Your task to perform on an android device: visit the assistant section in the google photos Image 0: 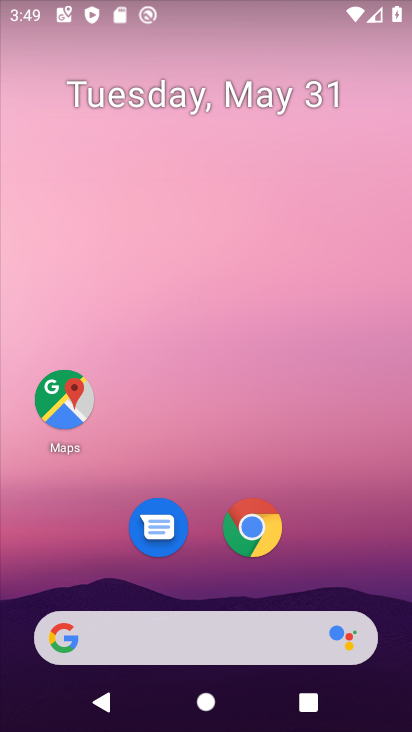
Step 0: drag from (184, 593) to (395, 663)
Your task to perform on an android device: visit the assistant section in the google photos Image 1: 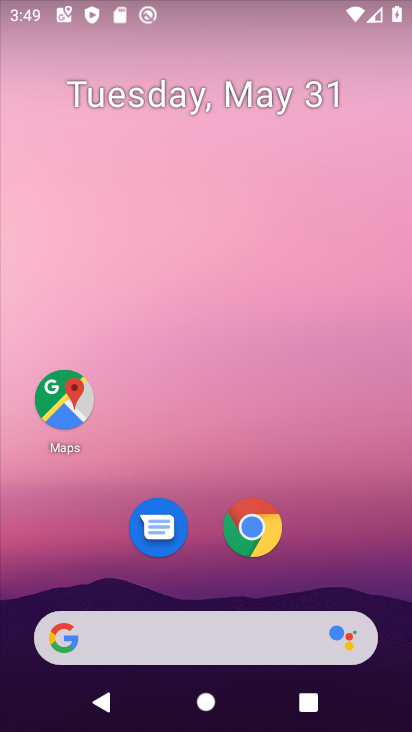
Step 1: drag from (203, 585) to (402, 497)
Your task to perform on an android device: visit the assistant section in the google photos Image 2: 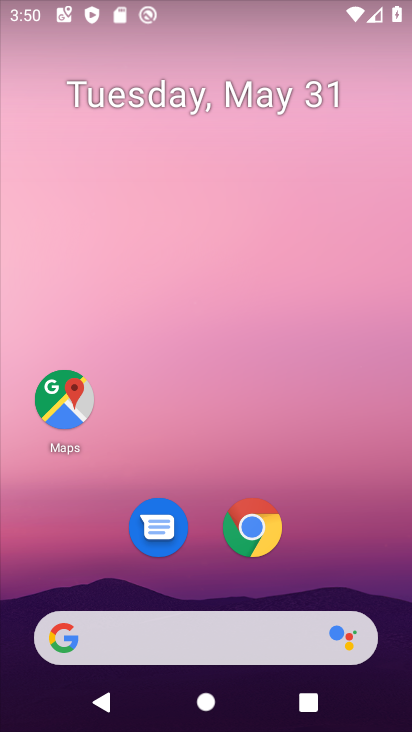
Step 2: drag from (180, 632) to (277, 11)
Your task to perform on an android device: visit the assistant section in the google photos Image 3: 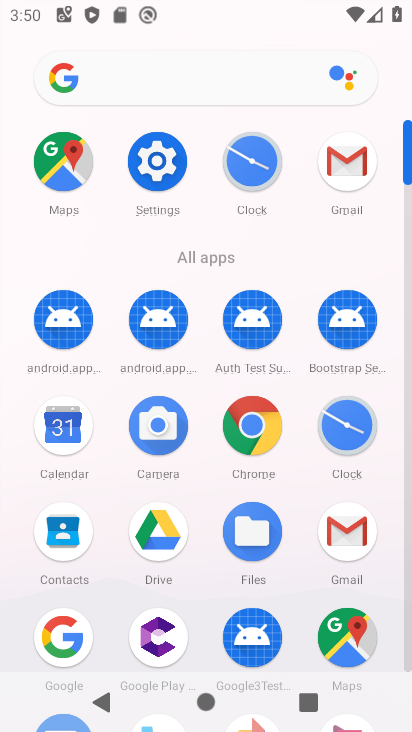
Step 3: drag from (198, 594) to (138, 68)
Your task to perform on an android device: visit the assistant section in the google photos Image 4: 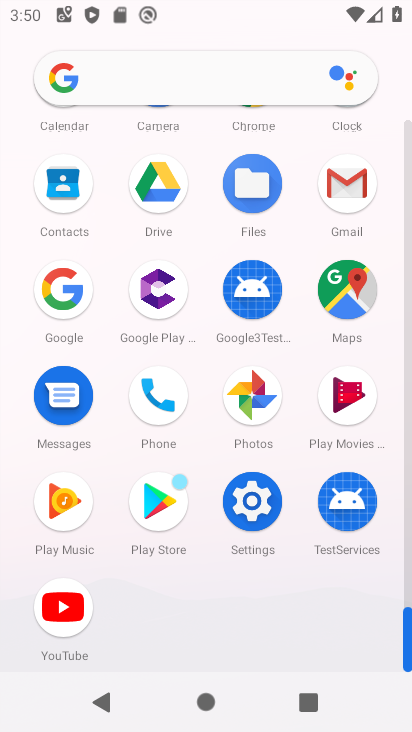
Step 4: click (251, 406)
Your task to perform on an android device: visit the assistant section in the google photos Image 5: 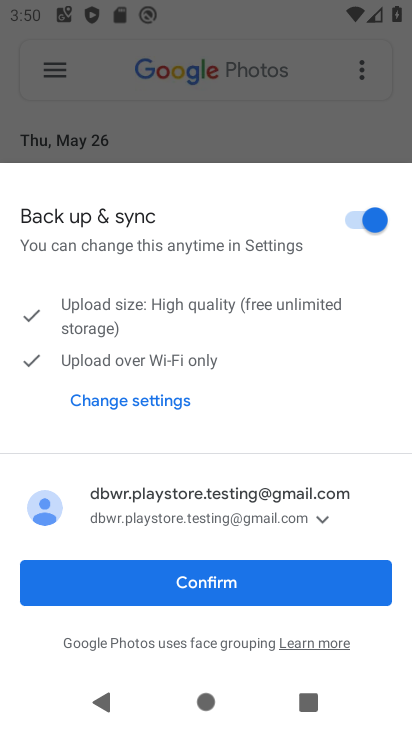
Step 5: click (293, 587)
Your task to perform on an android device: visit the assistant section in the google photos Image 6: 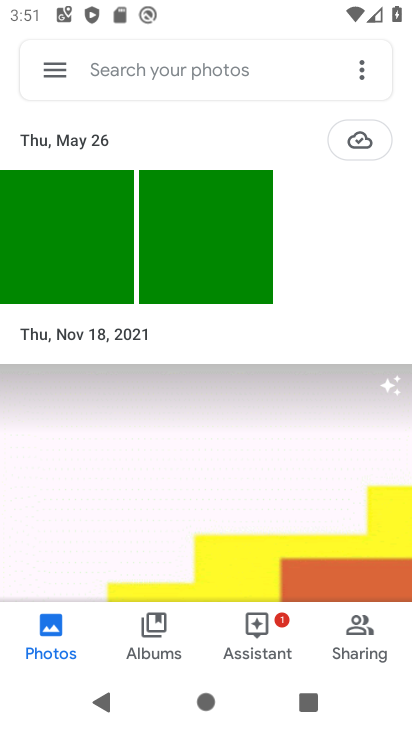
Step 6: click (247, 631)
Your task to perform on an android device: visit the assistant section in the google photos Image 7: 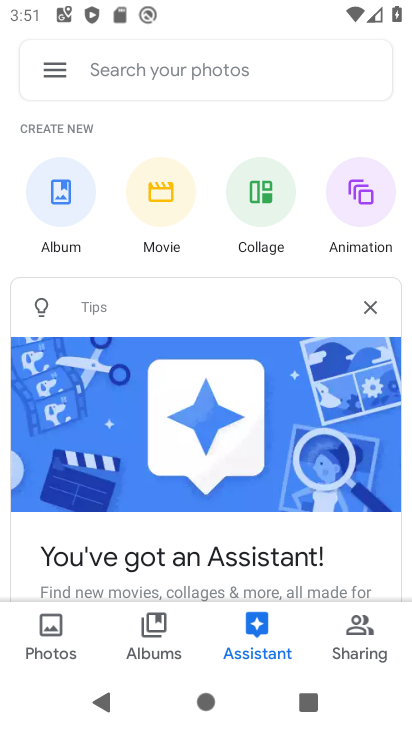
Step 7: task complete